Your task to perform on an android device: turn off data saver in the chrome app Image 0: 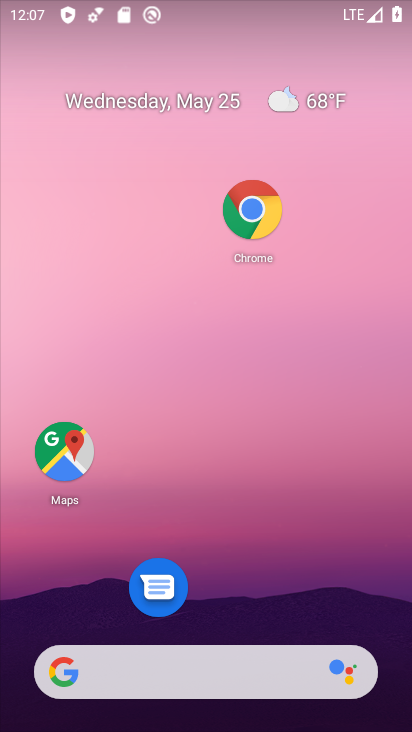
Step 0: press home button
Your task to perform on an android device: turn off data saver in the chrome app Image 1: 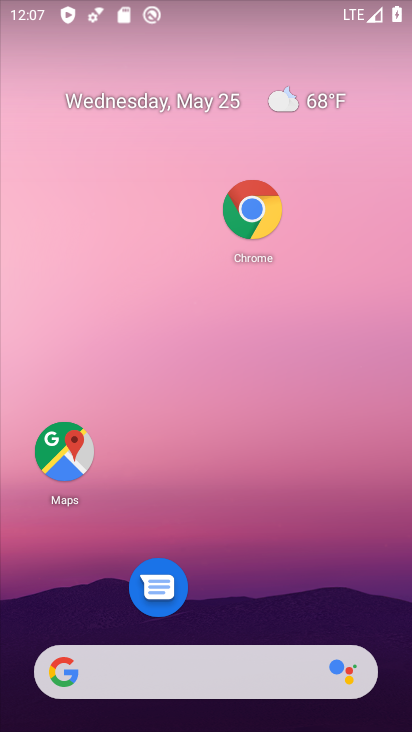
Step 1: click (251, 199)
Your task to perform on an android device: turn off data saver in the chrome app Image 2: 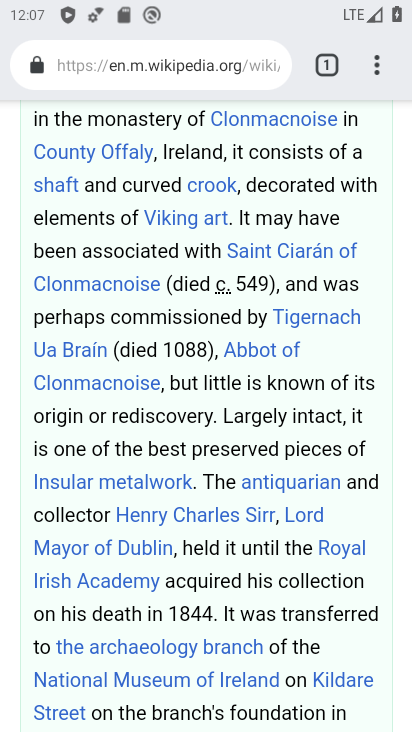
Step 2: click (374, 70)
Your task to perform on an android device: turn off data saver in the chrome app Image 3: 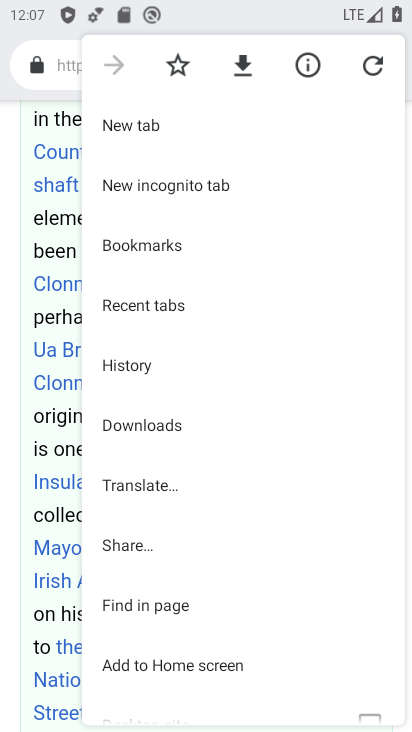
Step 3: drag from (190, 627) to (240, 220)
Your task to perform on an android device: turn off data saver in the chrome app Image 4: 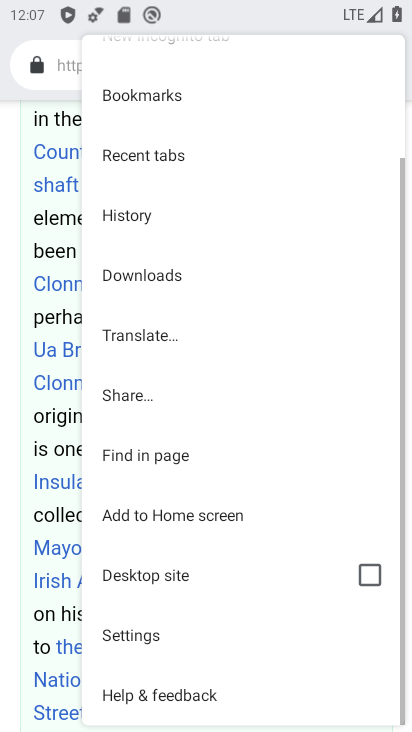
Step 4: click (167, 631)
Your task to perform on an android device: turn off data saver in the chrome app Image 5: 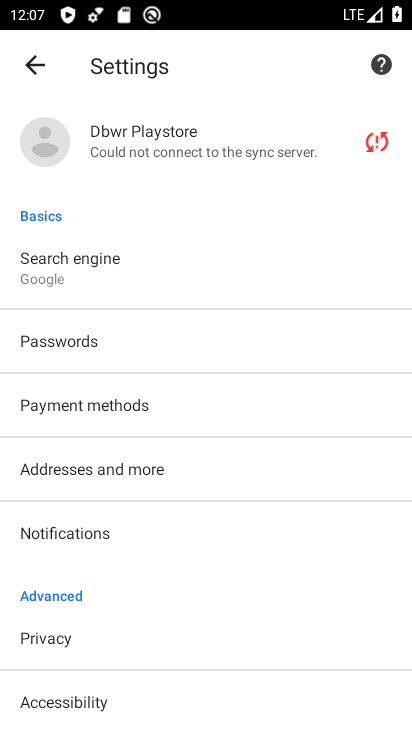
Step 5: drag from (159, 662) to (198, 221)
Your task to perform on an android device: turn off data saver in the chrome app Image 6: 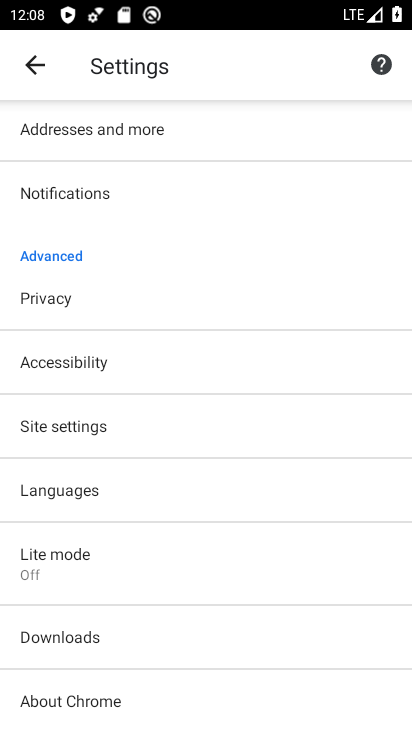
Step 6: drag from (135, 629) to (194, 271)
Your task to perform on an android device: turn off data saver in the chrome app Image 7: 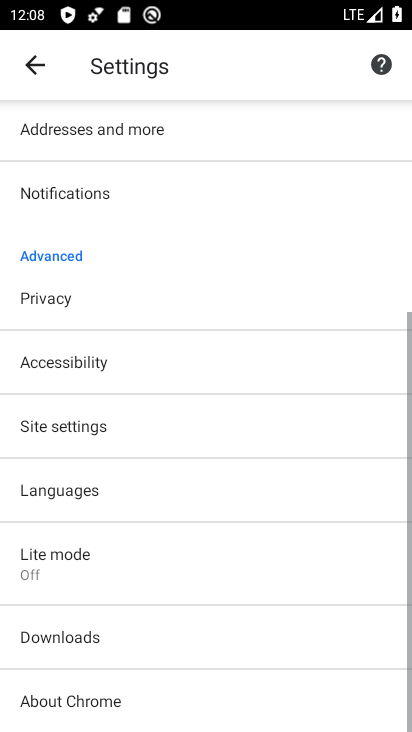
Step 7: click (90, 562)
Your task to perform on an android device: turn off data saver in the chrome app Image 8: 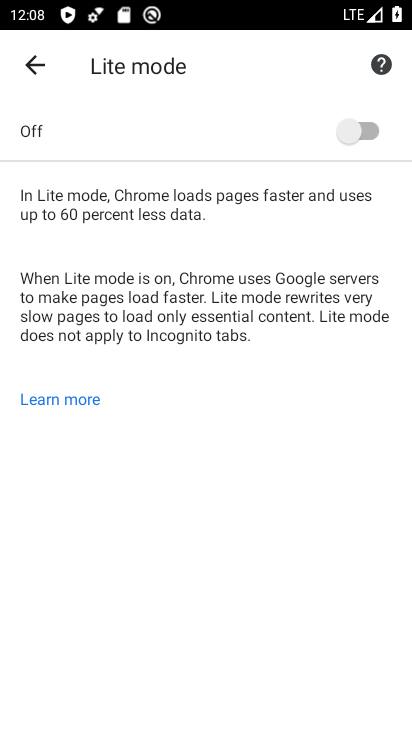
Step 8: task complete